Your task to perform on an android device: allow cookies in the chrome app Image 0: 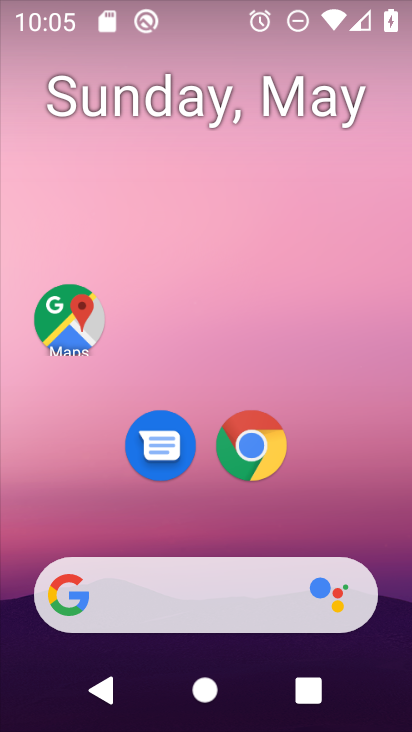
Step 0: drag from (240, 642) to (259, 259)
Your task to perform on an android device: allow cookies in the chrome app Image 1: 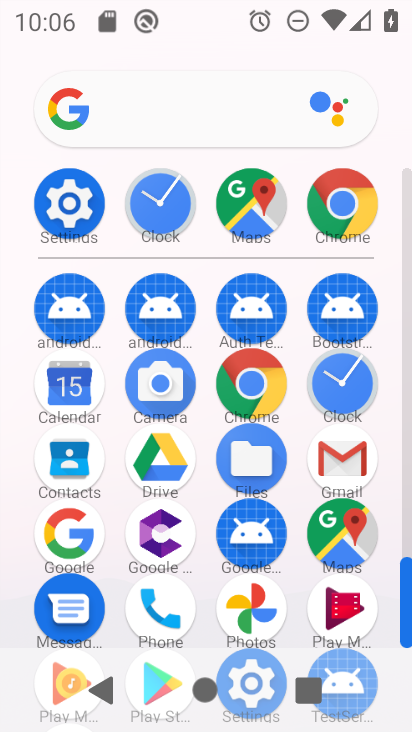
Step 1: click (361, 228)
Your task to perform on an android device: allow cookies in the chrome app Image 2: 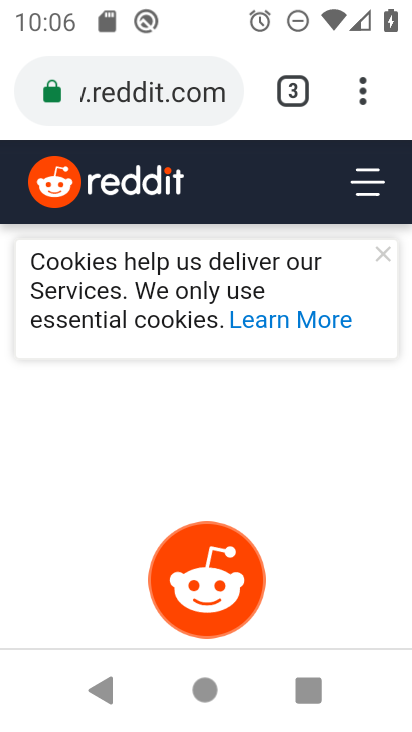
Step 2: click (372, 97)
Your task to perform on an android device: allow cookies in the chrome app Image 3: 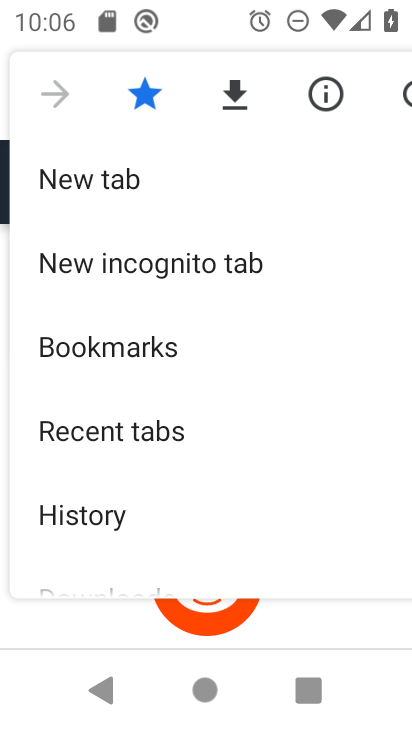
Step 3: drag from (197, 422) to (251, 200)
Your task to perform on an android device: allow cookies in the chrome app Image 4: 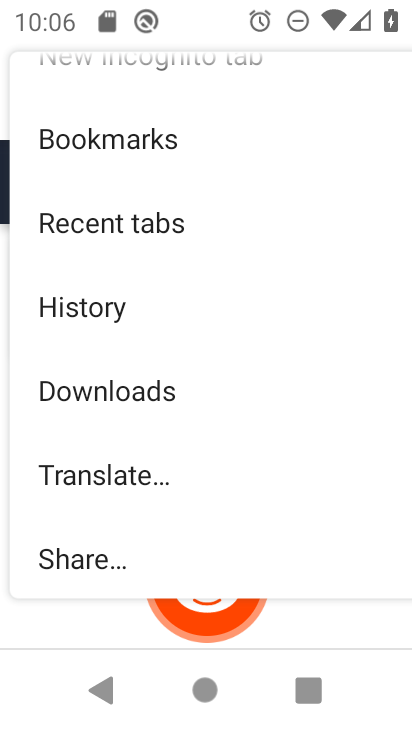
Step 4: drag from (123, 451) to (164, 306)
Your task to perform on an android device: allow cookies in the chrome app Image 5: 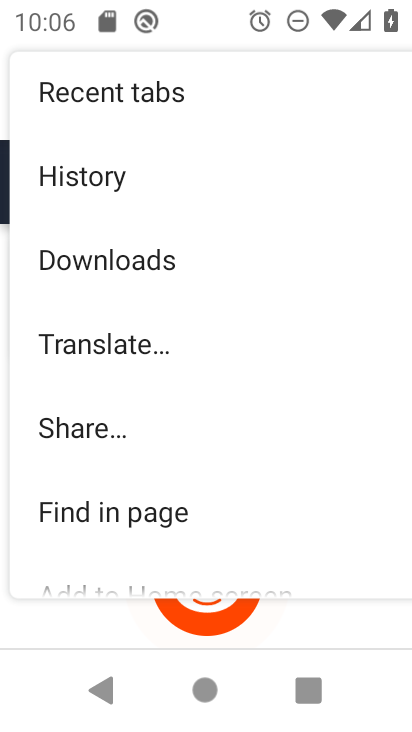
Step 5: drag from (193, 461) to (230, 254)
Your task to perform on an android device: allow cookies in the chrome app Image 6: 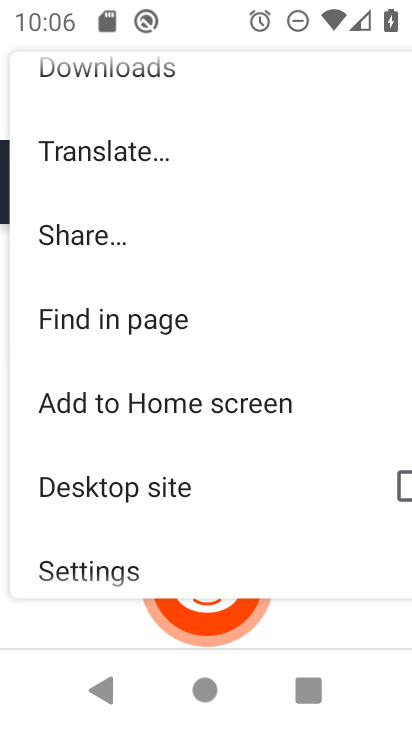
Step 6: drag from (207, 343) to (225, 231)
Your task to perform on an android device: allow cookies in the chrome app Image 7: 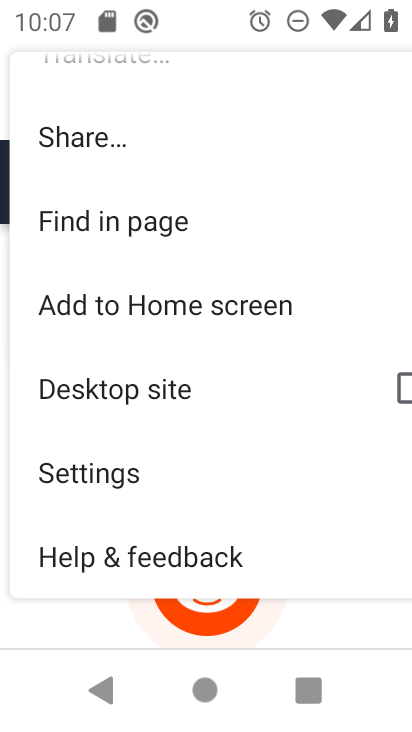
Step 7: click (157, 471)
Your task to perform on an android device: allow cookies in the chrome app Image 8: 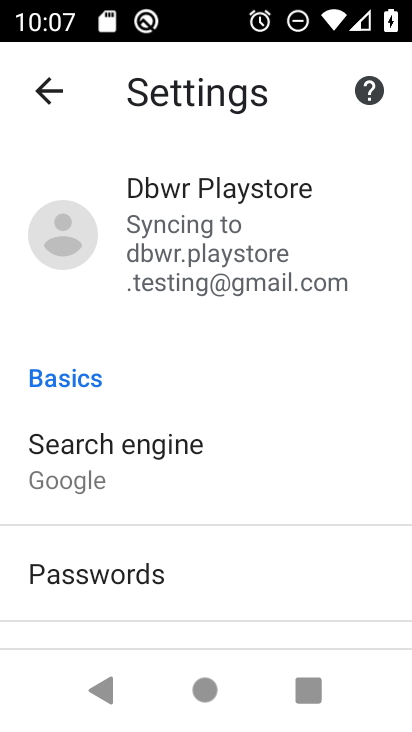
Step 8: drag from (156, 568) to (202, 292)
Your task to perform on an android device: allow cookies in the chrome app Image 9: 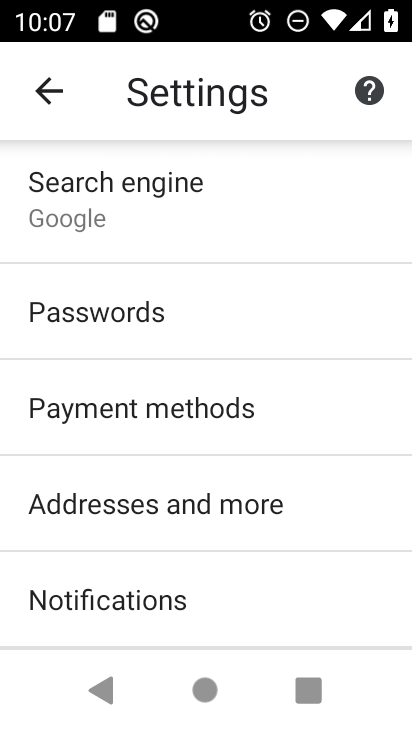
Step 9: drag from (124, 514) to (139, 326)
Your task to perform on an android device: allow cookies in the chrome app Image 10: 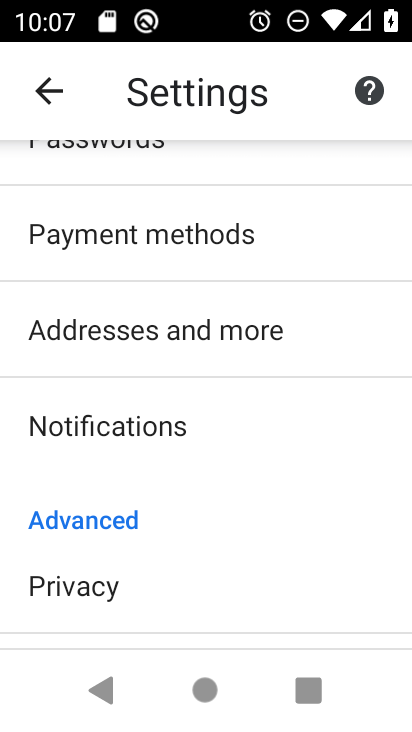
Step 10: drag from (140, 548) to (191, 183)
Your task to perform on an android device: allow cookies in the chrome app Image 11: 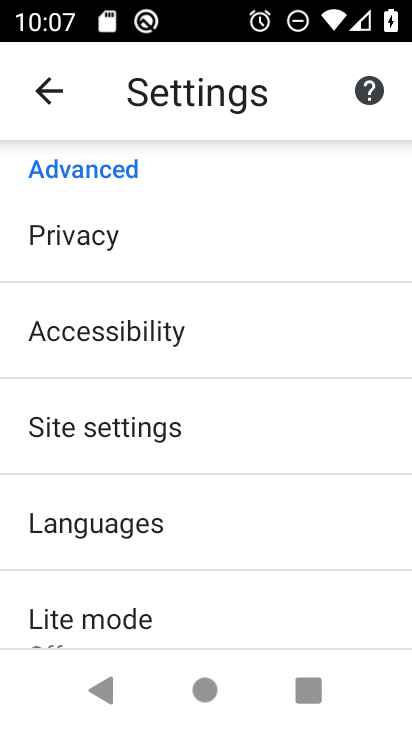
Step 11: click (153, 435)
Your task to perform on an android device: allow cookies in the chrome app Image 12: 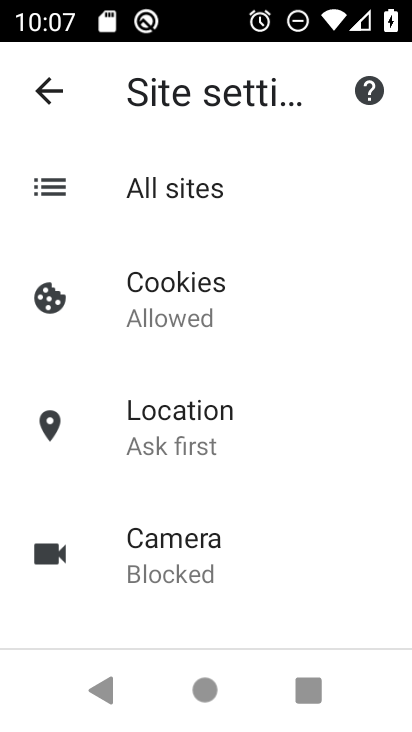
Step 12: click (207, 312)
Your task to perform on an android device: allow cookies in the chrome app Image 13: 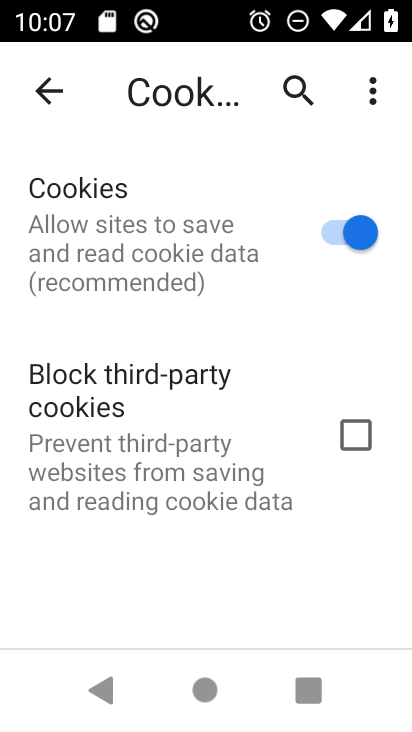
Step 13: task complete